Your task to perform on an android device: Go to Google maps Image 0: 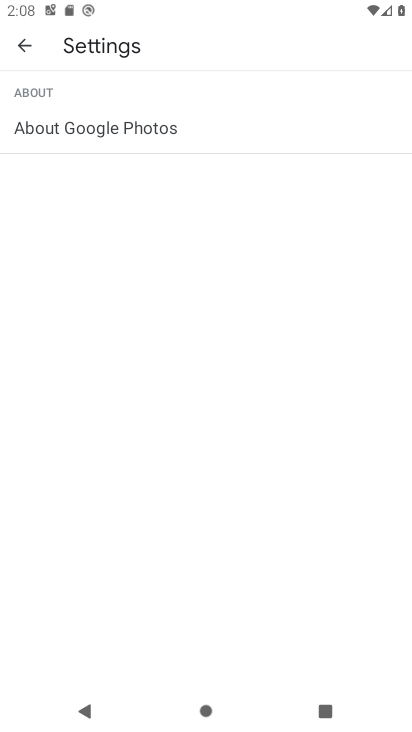
Step 0: press home button
Your task to perform on an android device: Go to Google maps Image 1: 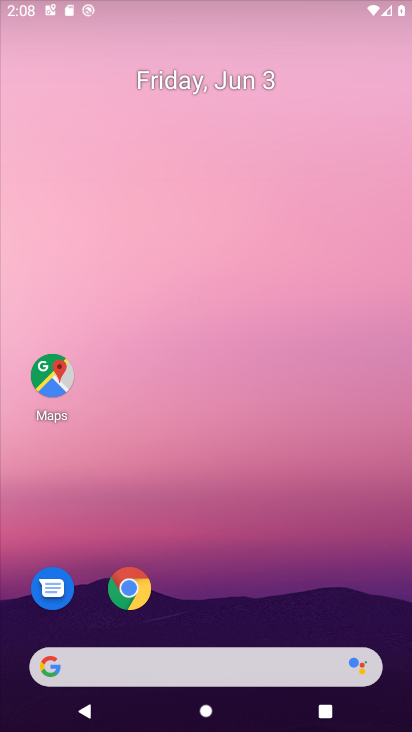
Step 1: drag from (220, 607) to (165, 245)
Your task to perform on an android device: Go to Google maps Image 2: 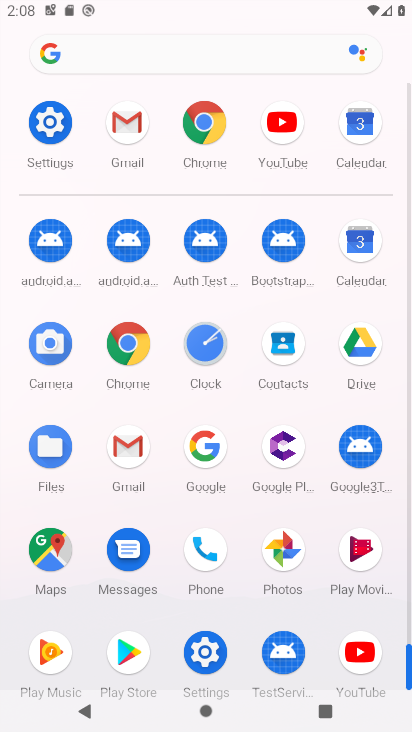
Step 2: click (53, 567)
Your task to perform on an android device: Go to Google maps Image 3: 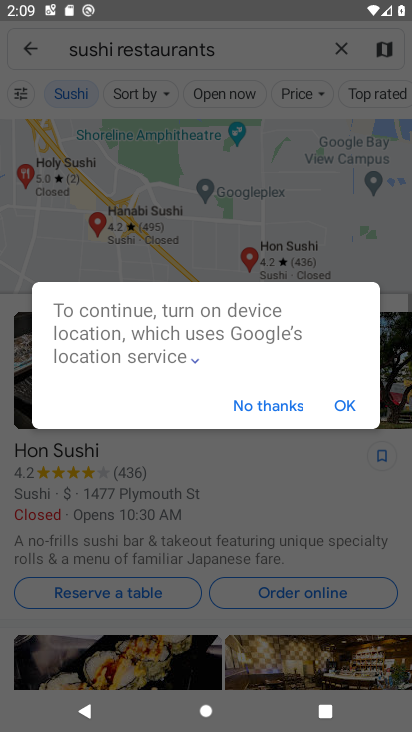
Step 3: click (338, 412)
Your task to perform on an android device: Go to Google maps Image 4: 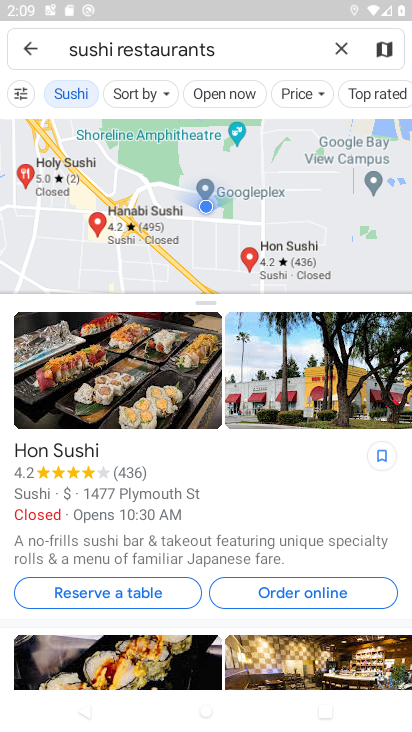
Step 4: task complete